Your task to perform on an android device: check android version Image 0: 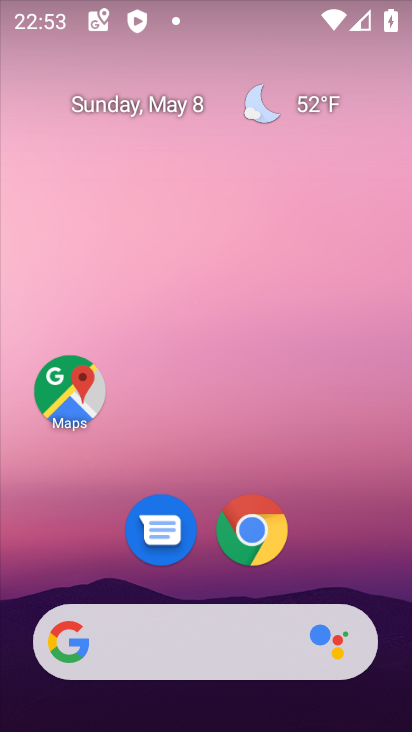
Step 0: drag from (368, 572) to (363, 95)
Your task to perform on an android device: check android version Image 1: 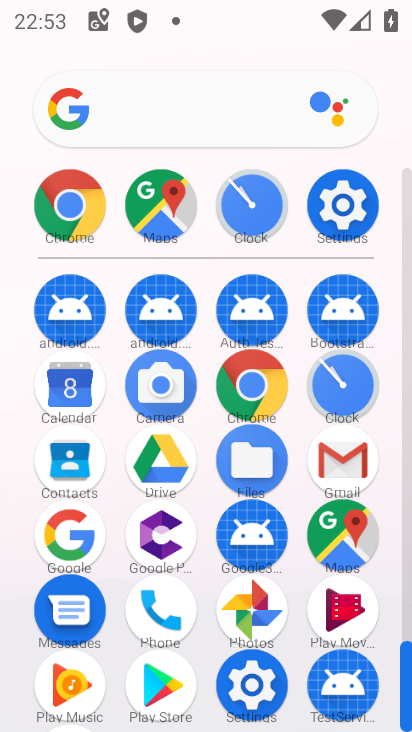
Step 1: click (342, 191)
Your task to perform on an android device: check android version Image 2: 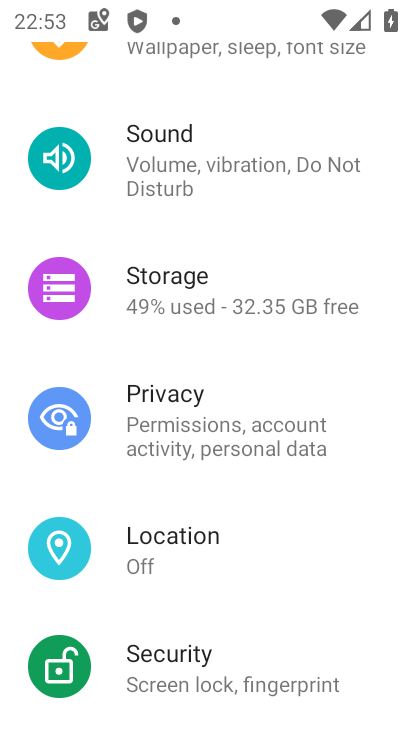
Step 2: drag from (295, 630) to (305, 294)
Your task to perform on an android device: check android version Image 3: 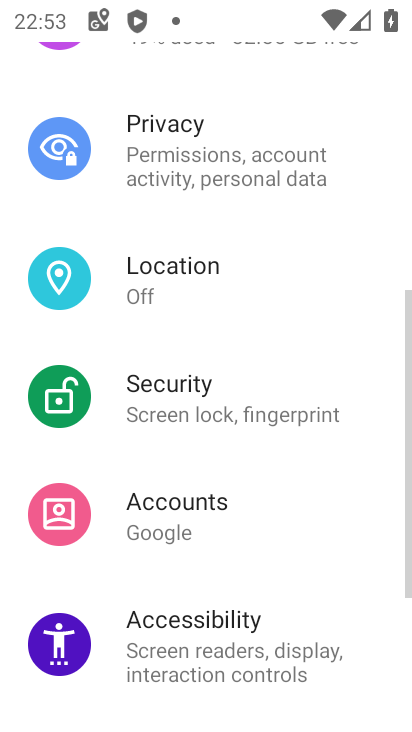
Step 3: drag from (232, 643) to (254, 334)
Your task to perform on an android device: check android version Image 4: 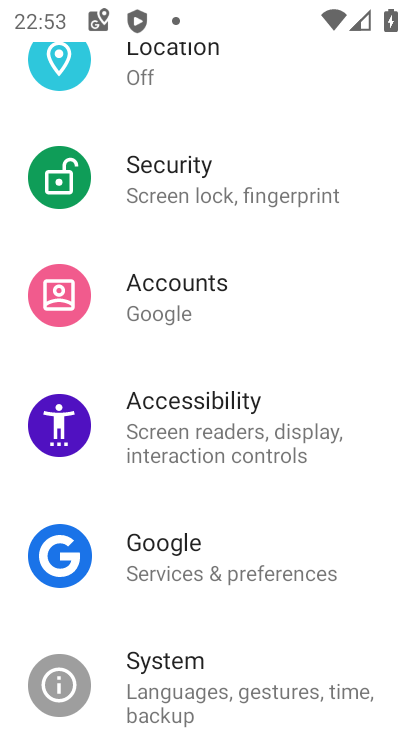
Step 4: drag from (270, 672) to (255, 399)
Your task to perform on an android device: check android version Image 5: 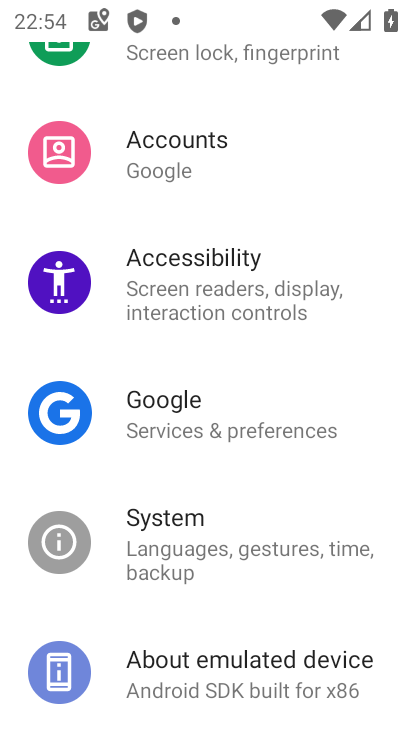
Step 5: click (246, 679)
Your task to perform on an android device: check android version Image 6: 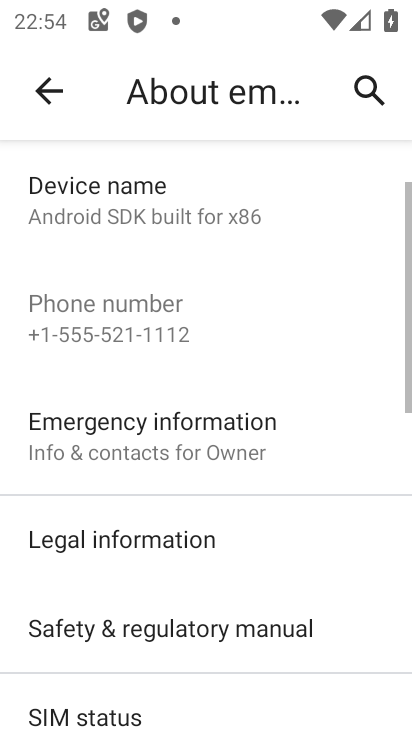
Step 6: drag from (242, 681) to (299, 297)
Your task to perform on an android device: check android version Image 7: 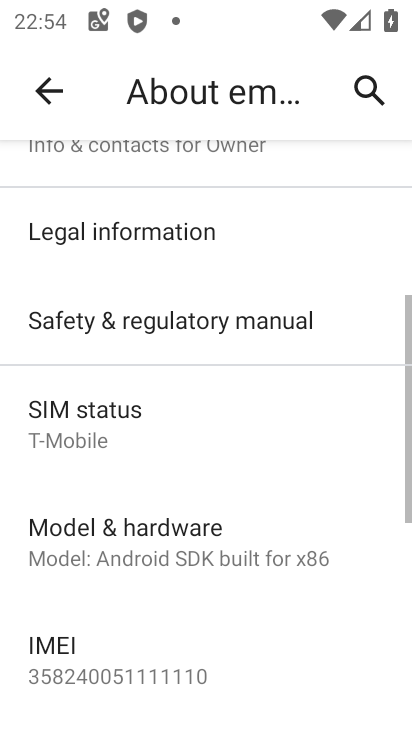
Step 7: drag from (203, 680) to (311, 236)
Your task to perform on an android device: check android version Image 8: 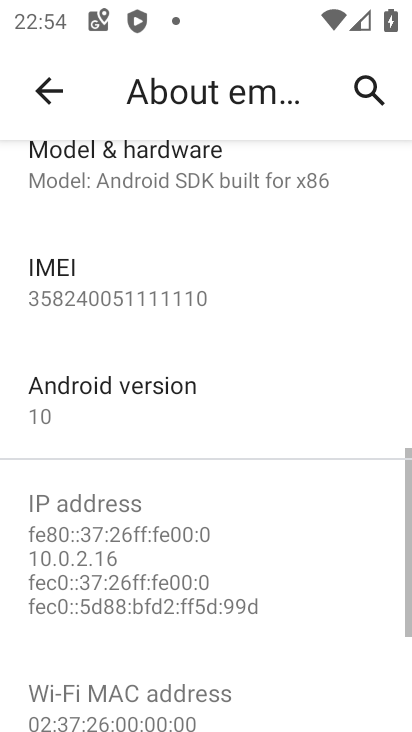
Step 8: click (228, 483)
Your task to perform on an android device: check android version Image 9: 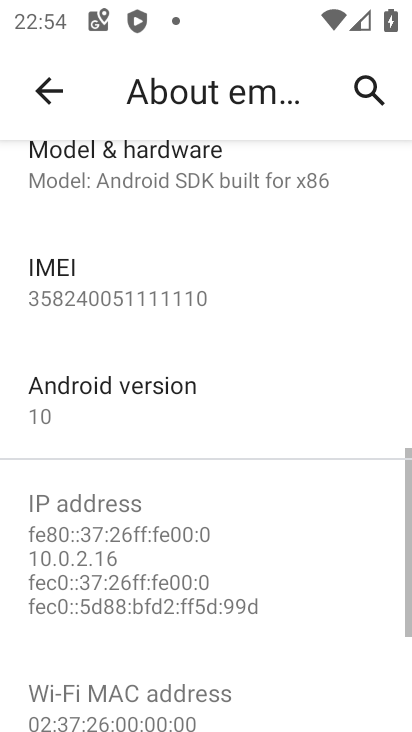
Step 9: click (182, 394)
Your task to perform on an android device: check android version Image 10: 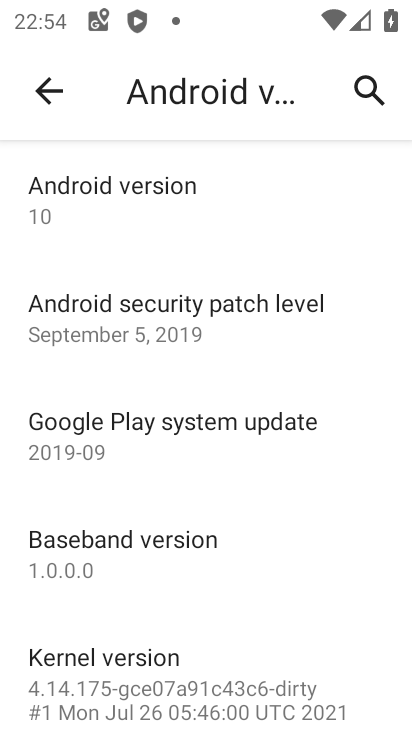
Step 10: task complete